Your task to perform on an android device: Open network settings Image 0: 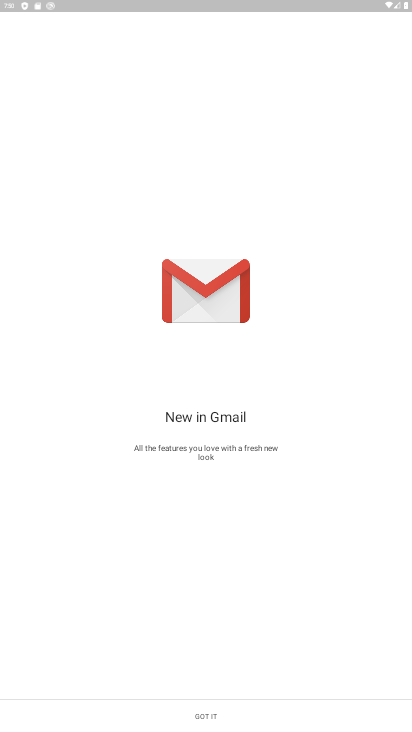
Step 0: press home button
Your task to perform on an android device: Open network settings Image 1: 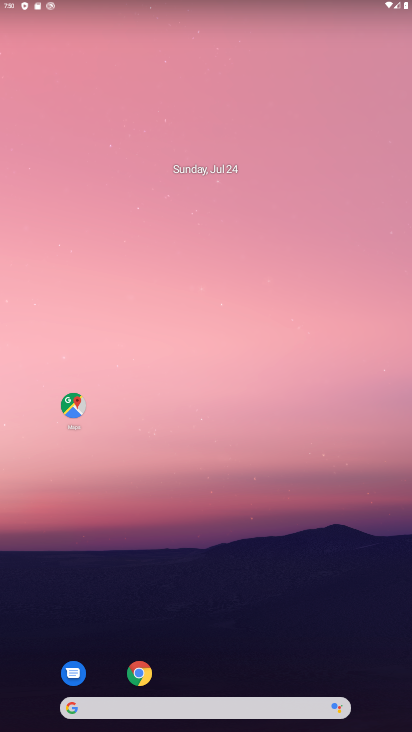
Step 1: drag from (172, 468) to (177, 259)
Your task to perform on an android device: Open network settings Image 2: 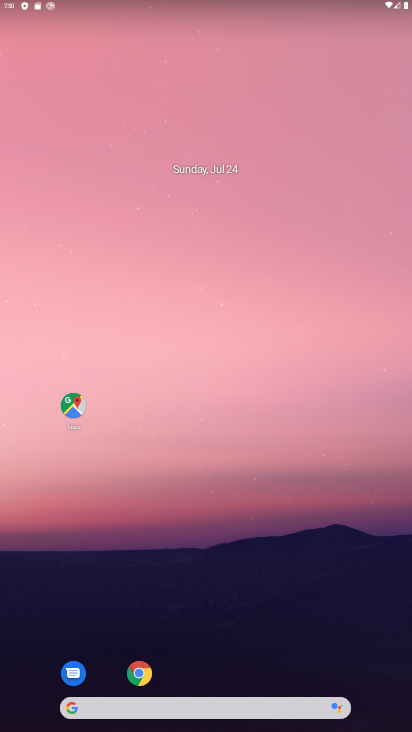
Step 2: drag from (174, 491) to (176, 261)
Your task to perform on an android device: Open network settings Image 3: 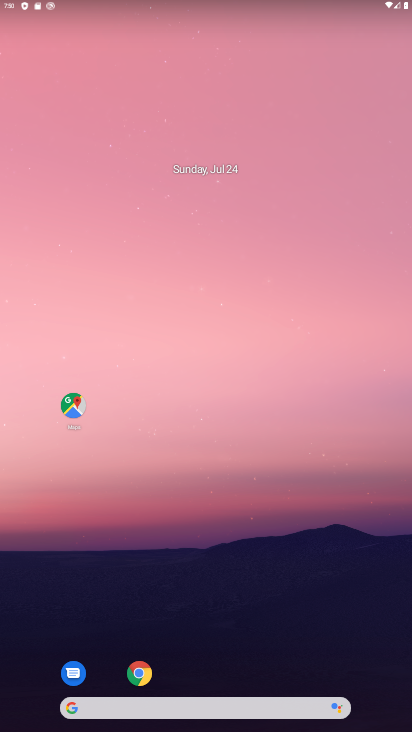
Step 3: drag from (187, 652) to (187, 68)
Your task to perform on an android device: Open network settings Image 4: 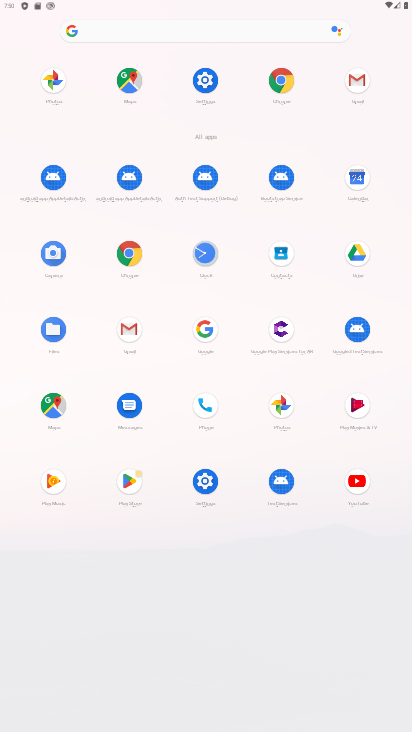
Step 4: click (213, 84)
Your task to perform on an android device: Open network settings Image 5: 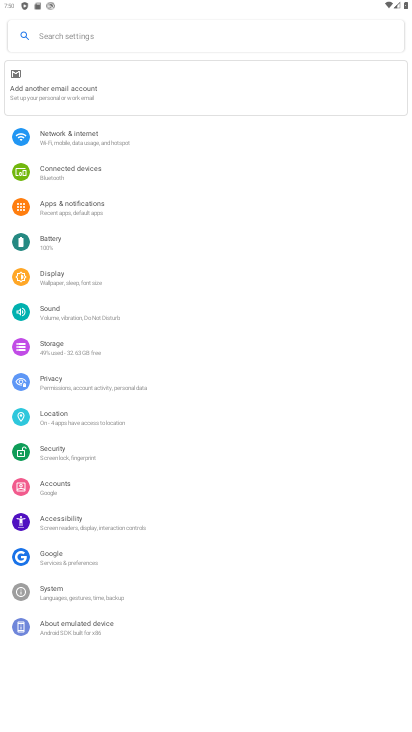
Step 5: click (68, 138)
Your task to perform on an android device: Open network settings Image 6: 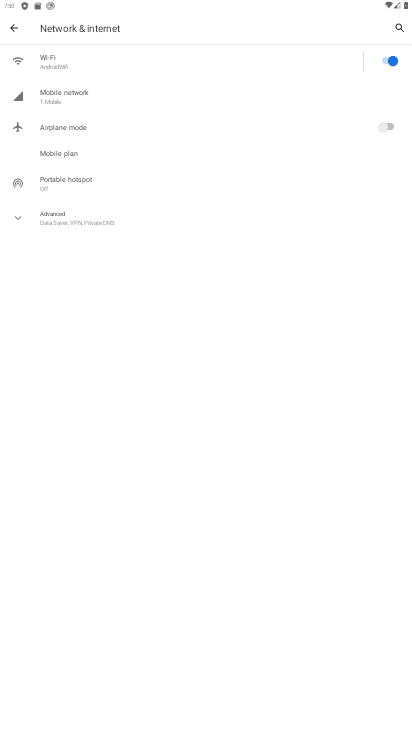
Step 6: task complete